Your task to perform on an android device: Open privacy settings Image 0: 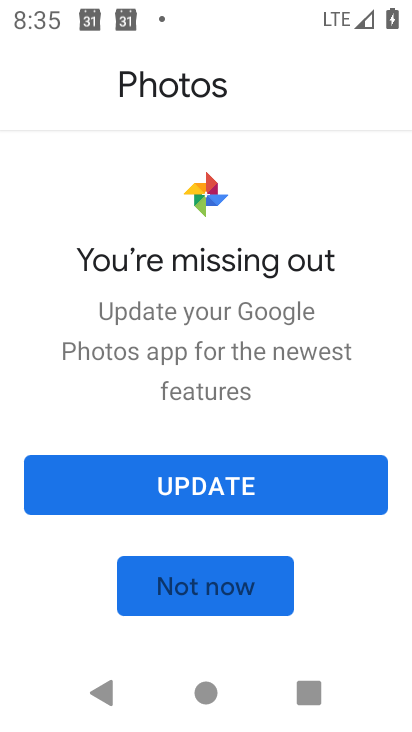
Step 0: click (227, 580)
Your task to perform on an android device: Open privacy settings Image 1: 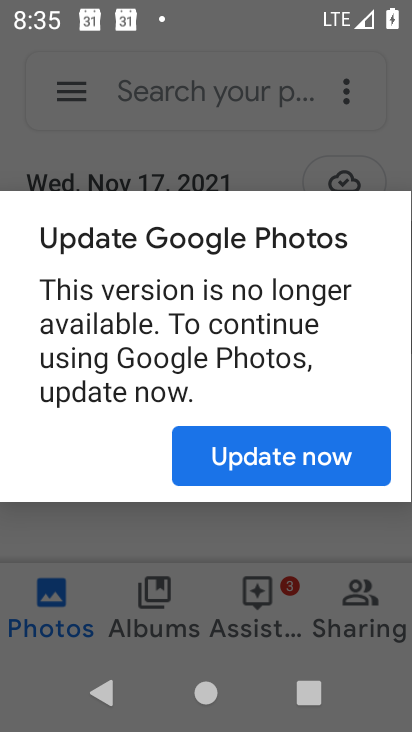
Step 1: click (241, 465)
Your task to perform on an android device: Open privacy settings Image 2: 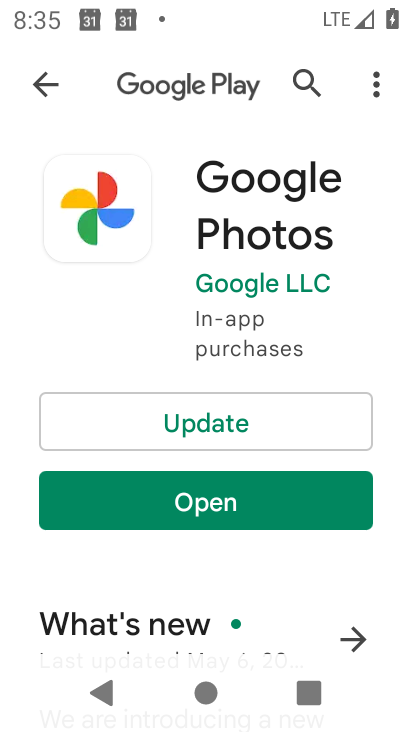
Step 2: press back button
Your task to perform on an android device: Open privacy settings Image 3: 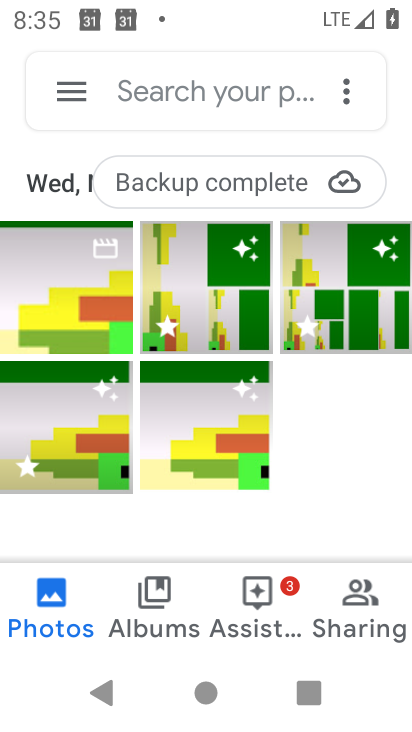
Step 3: press home button
Your task to perform on an android device: Open privacy settings Image 4: 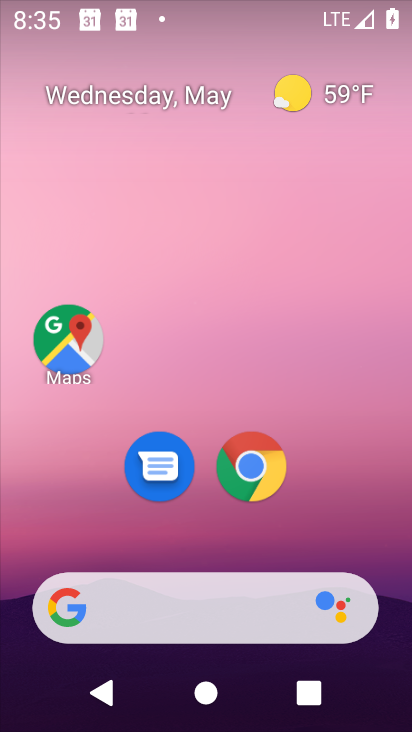
Step 4: drag from (348, 551) to (323, 228)
Your task to perform on an android device: Open privacy settings Image 5: 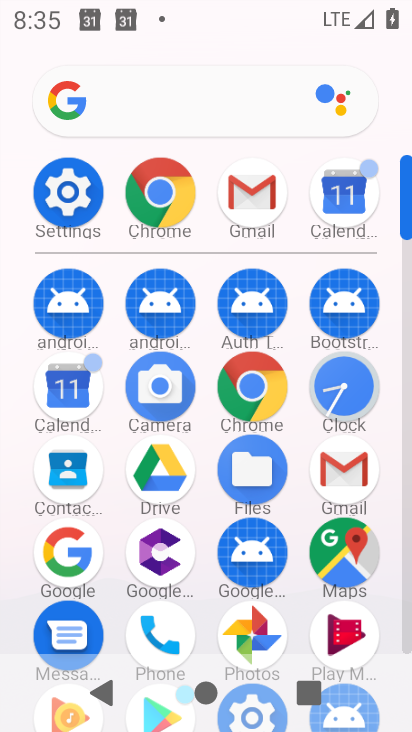
Step 5: click (80, 179)
Your task to perform on an android device: Open privacy settings Image 6: 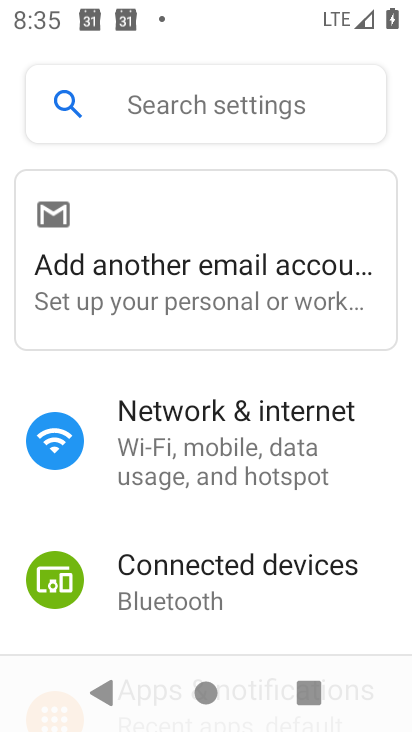
Step 6: drag from (335, 588) to (304, 196)
Your task to perform on an android device: Open privacy settings Image 7: 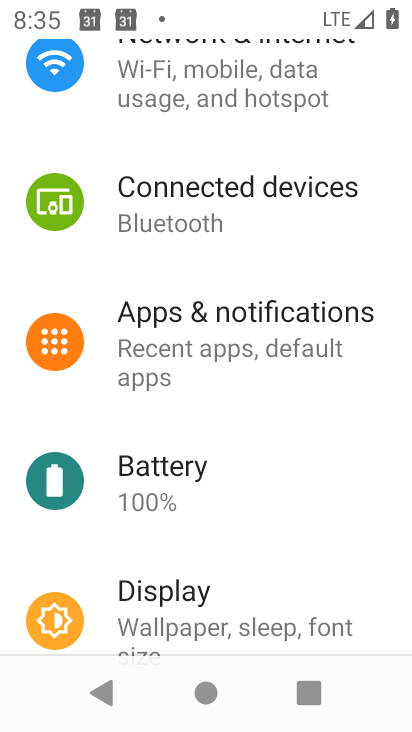
Step 7: drag from (219, 537) to (247, 248)
Your task to perform on an android device: Open privacy settings Image 8: 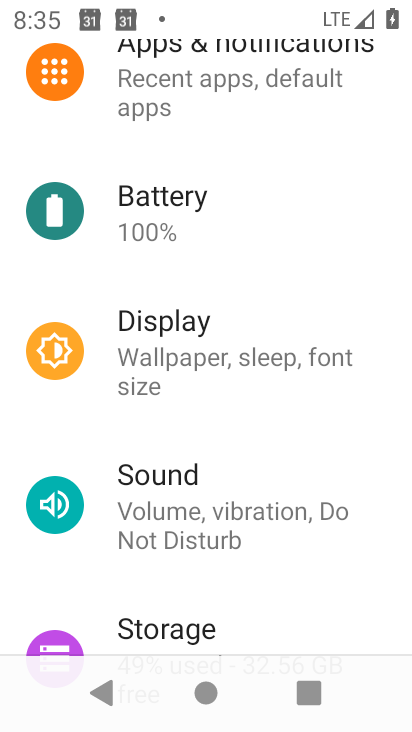
Step 8: drag from (209, 604) to (253, 235)
Your task to perform on an android device: Open privacy settings Image 9: 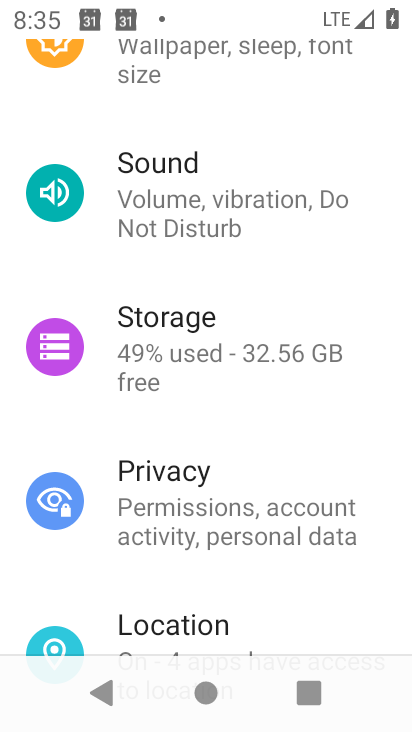
Step 9: click (248, 518)
Your task to perform on an android device: Open privacy settings Image 10: 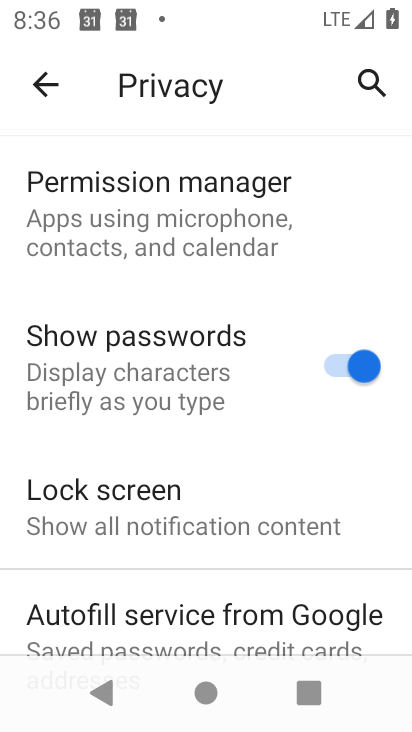
Step 10: task complete